Your task to perform on an android device: read, delete, or share a saved page in the chrome app Image 0: 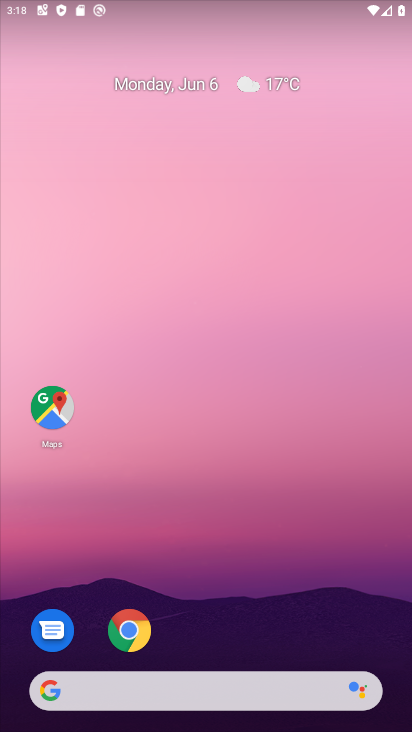
Step 0: click (139, 623)
Your task to perform on an android device: read, delete, or share a saved page in the chrome app Image 1: 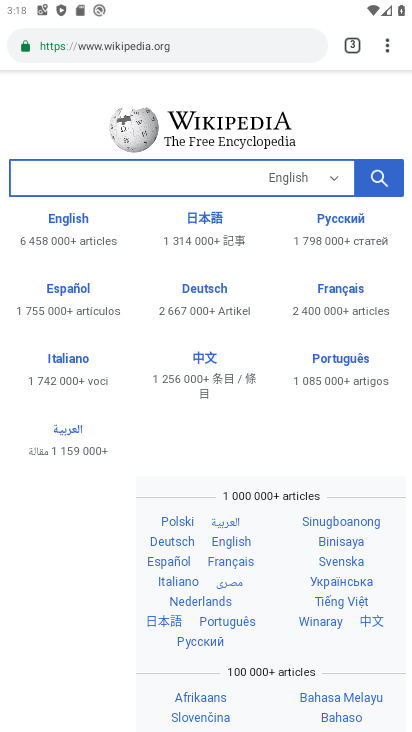
Step 1: drag from (388, 46) to (228, 293)
Your task to perform on an android device: read, delete, or share a saved page in the chrome app Image 2: 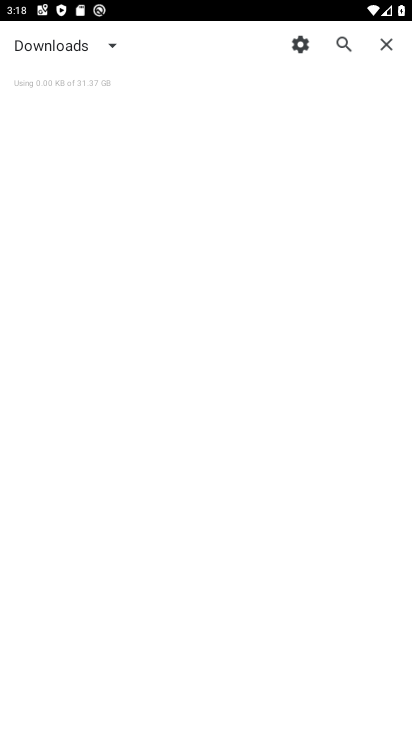
Step 2: click (109, 50)
Your task to perform on an android device: read, delete, or share a saved page in the chrome app Image 3: 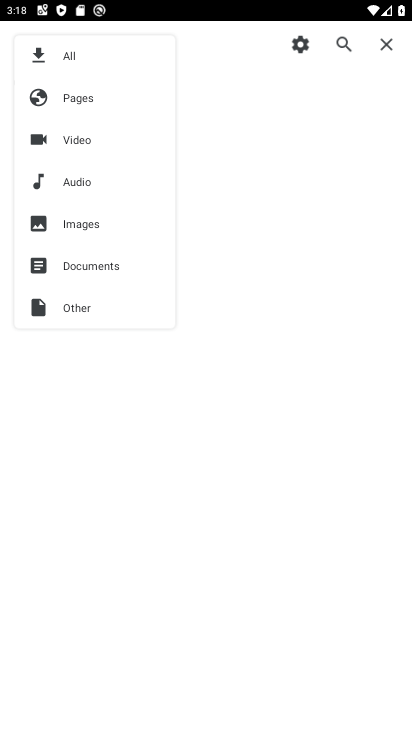
Step 3: click (85, 98)
Your task to perform on an android device: read, delete, or share a saved page in the chrome app Image 4: 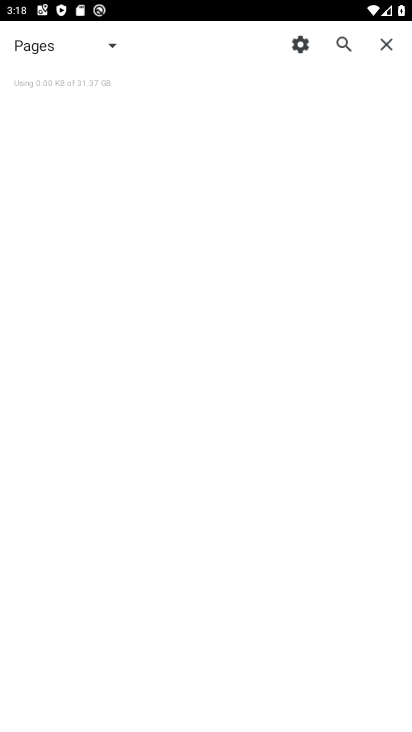
Step 4: task complete